Your task to perform on an android device: Clear the shopping cart on walmart.com. Add bose soundsport free to the cart on walmart.com, then select checkout. Image 0: 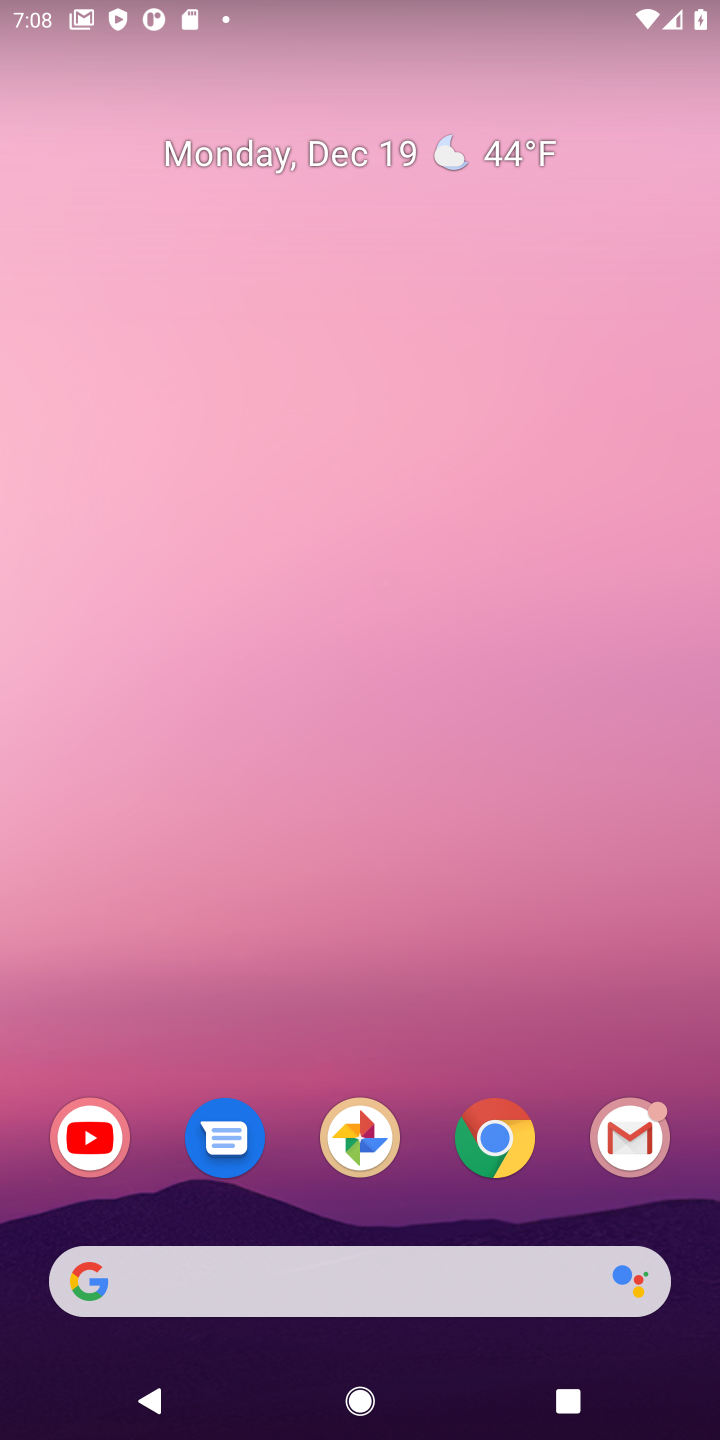
Step 0: click (499, 1140)
Your task to perform on an android device: Clear the shopping cart on walmart.com. Add bose soundsport free to the cart on walmart.com, then select checkout. Image 1: 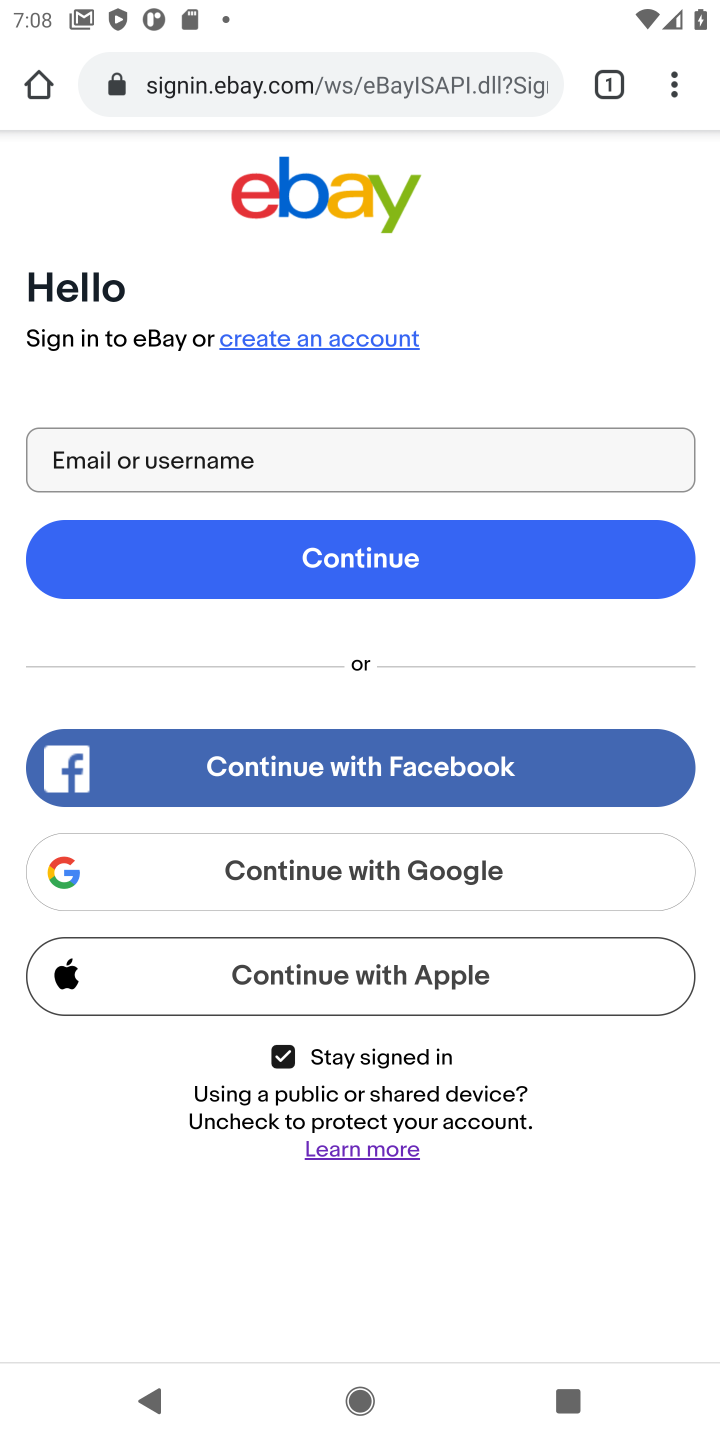
Step 1: click (382, 74)
Your task to perform on an android device: Clear the shopping cart on walmart.com. Add bose soundsport free to the cart on walmart.com, then select checkout. Image 2: 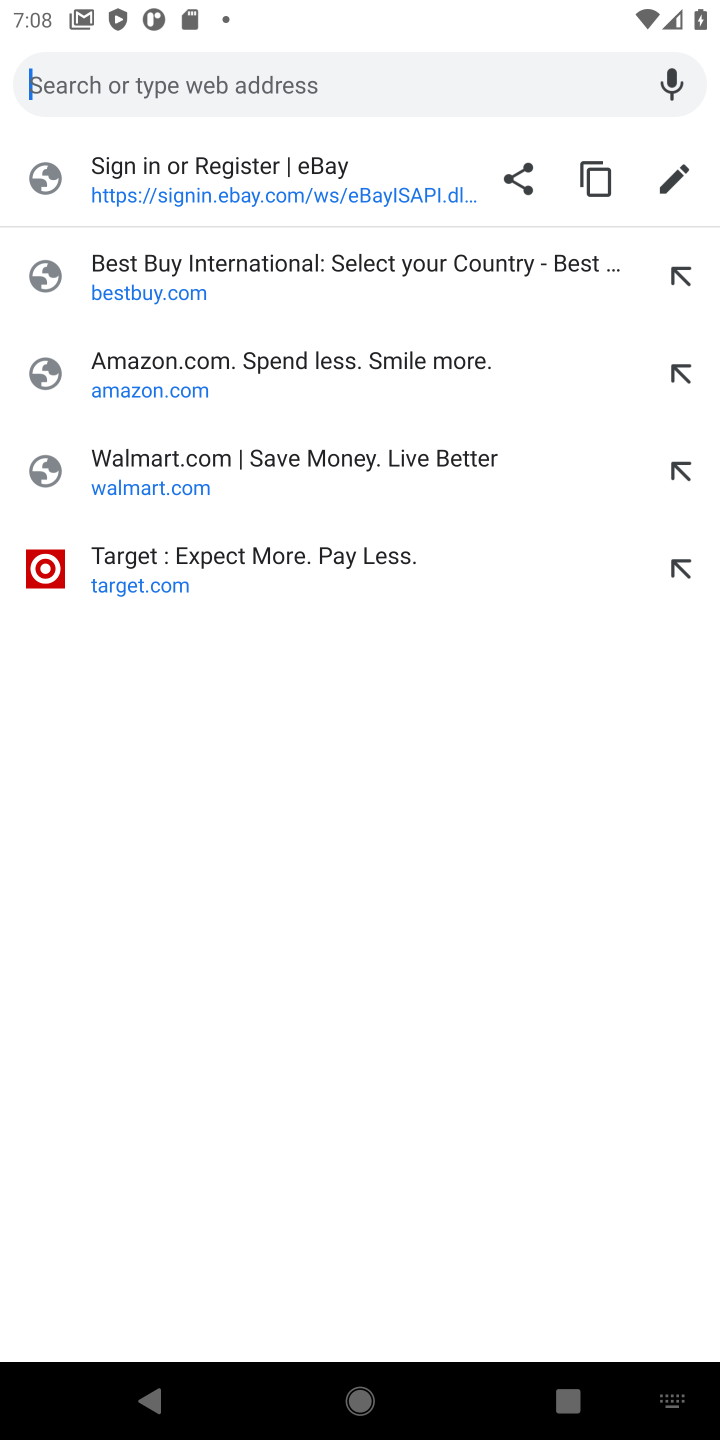
Step 2: click (208, 471)
Your task to perform on an android device: Clear the shopping cart on walmart.com. Add bose soundsport free to the cart on walmart.com, then select checkout. Image 3: 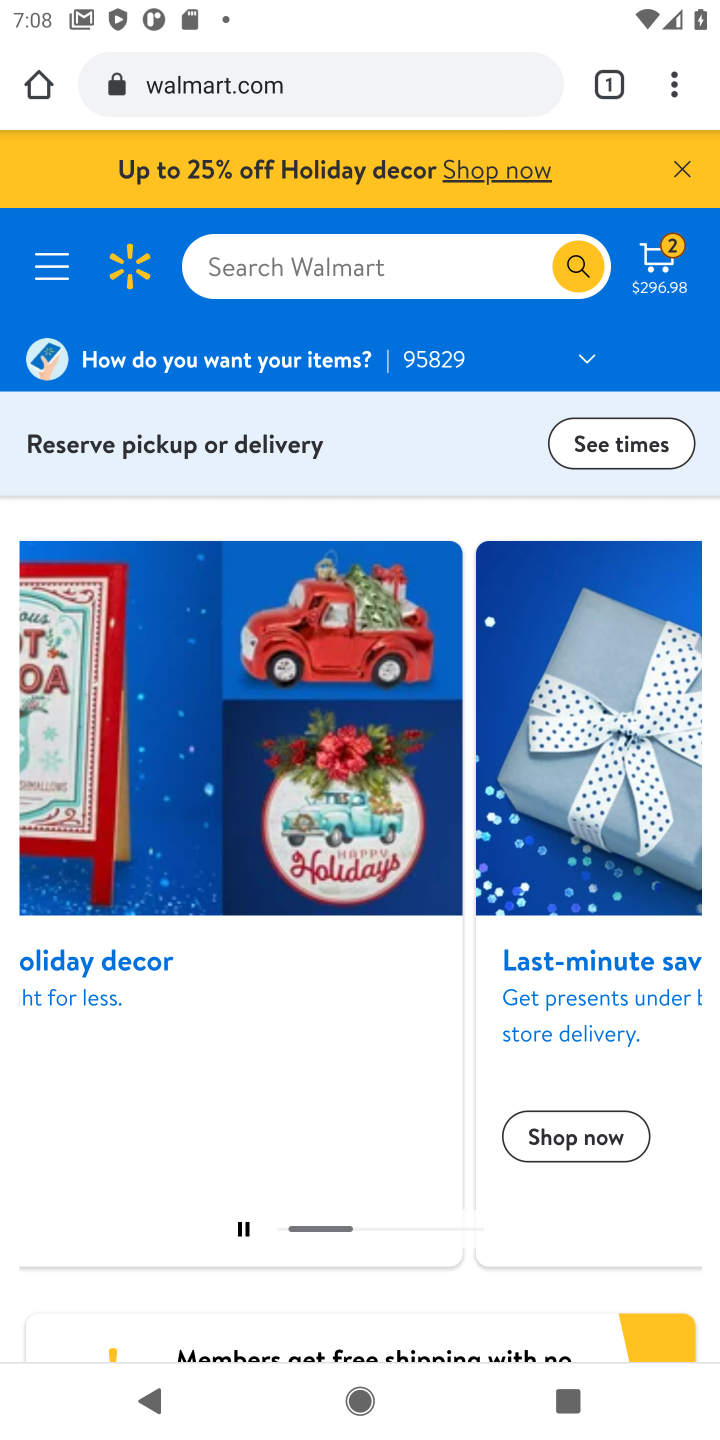
Step 3: click (656, 273)
Your task to perform on an android device: Clear the shopping cart on walmart.com. Add bose soundsport free to the cart on walmart.com, then select checkout. Image 4: 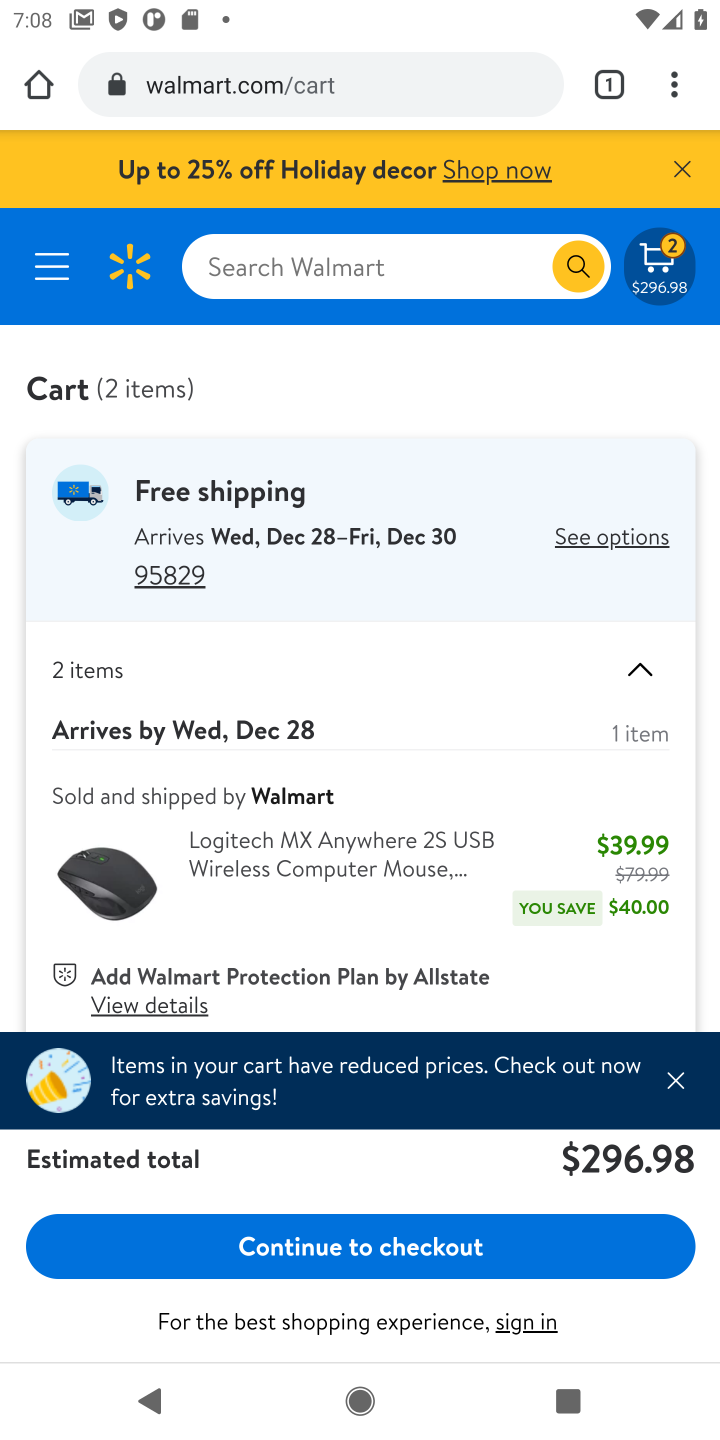
Step 4: click (676, 1090)
Your task to perform on an android device: Clear the shopping cart on walmart.com. Add bose soundsport free to the cart on walmart.com, then select checkout. Image 5: 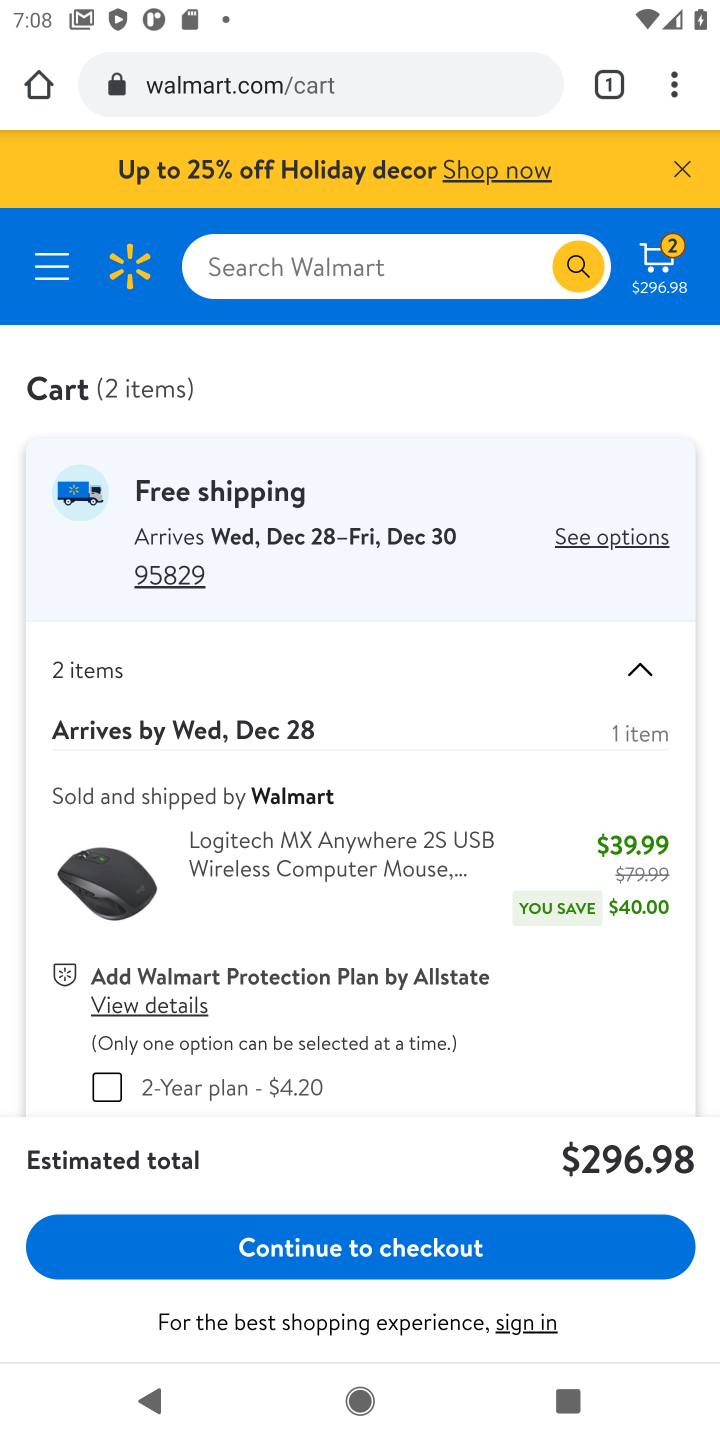
Step 5: drag from (340, 945) to (294, 517)
Your task to perform on an android device: Clear the shopping cart on walmart.com. Add bose soundsport free to the cart on walmart.com, then select checkout. Image 6: 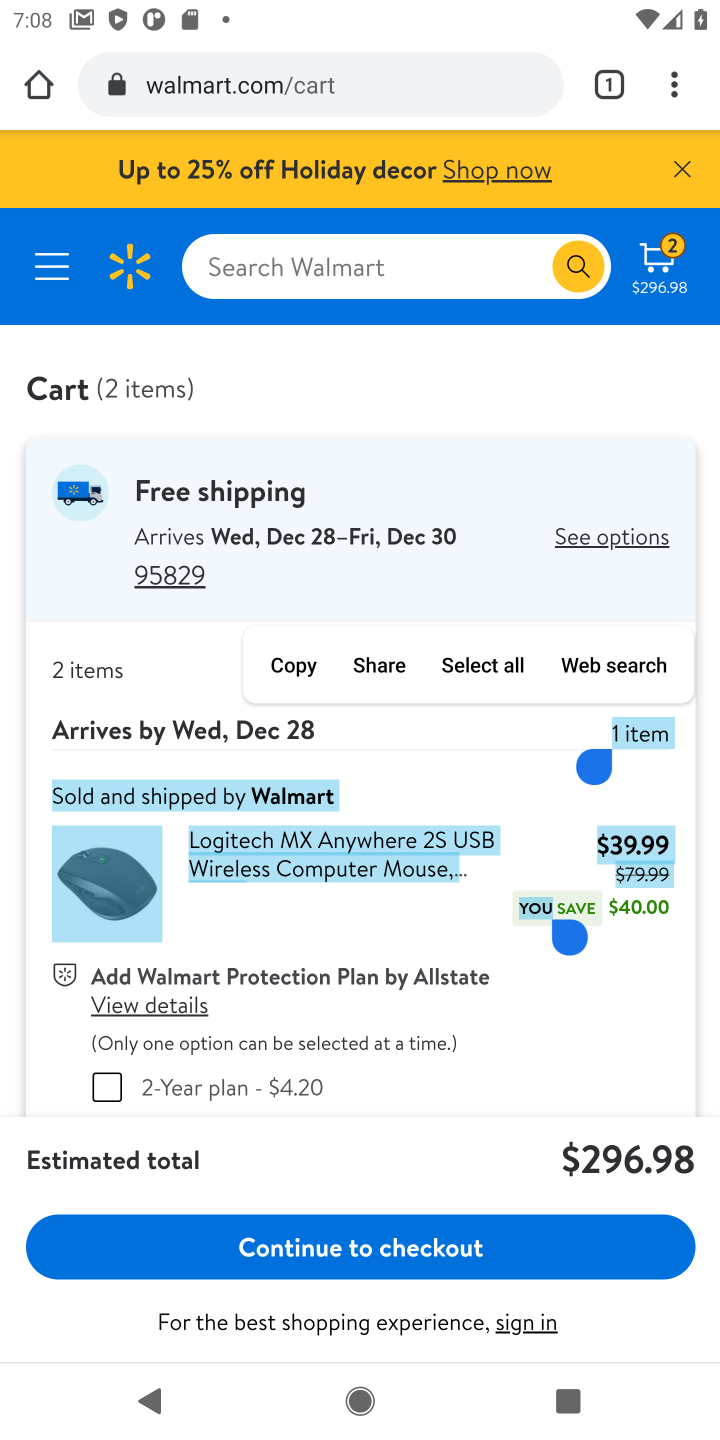
Step 6: click (372, 667)
Your task to perform on an android device: Clear the shopping cart on walmart.com. Add bose soundsport free to the cart on walmart.com, then select checkout. Image 7: 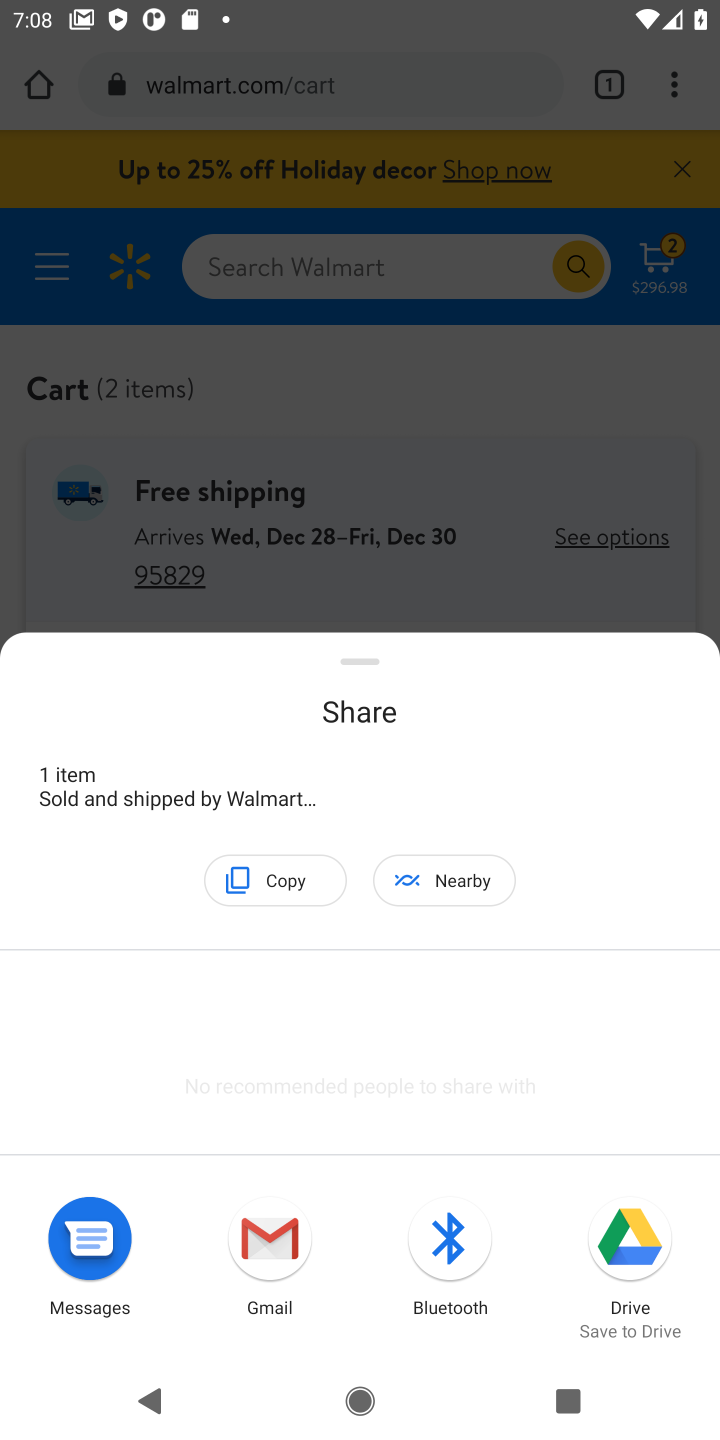
Step 7: click (301, 592)
Your task to perform on an android device: Clear the shopping cart on walmart.com. Add bose soundsport free to the cart on walmart.com, then select checkout. Image 8: 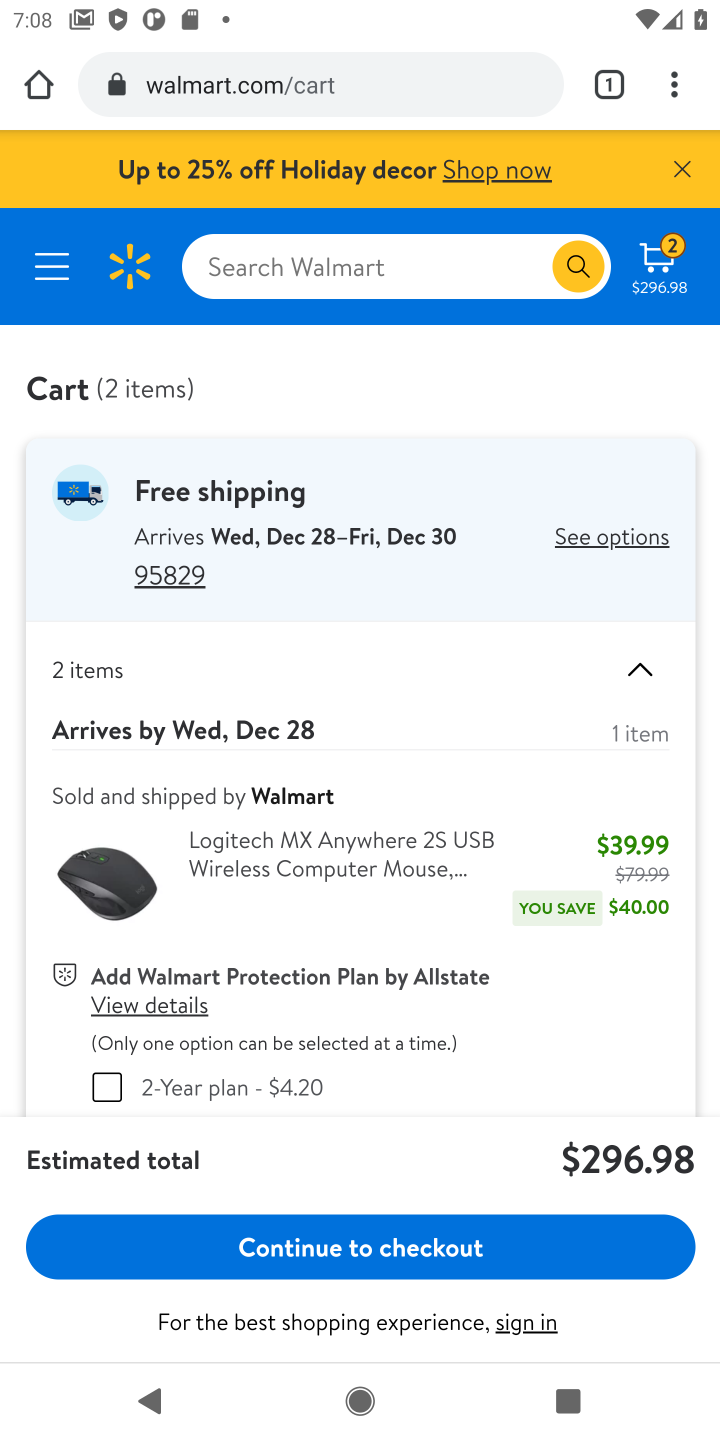
Step 8: drag from (293, 663) to (218, 224)
Your task to perform on an android device: Clear the shopping cart on walmart.com. Add bose soundsport free to the cart on walmart.com, then select checkout. Image 9: 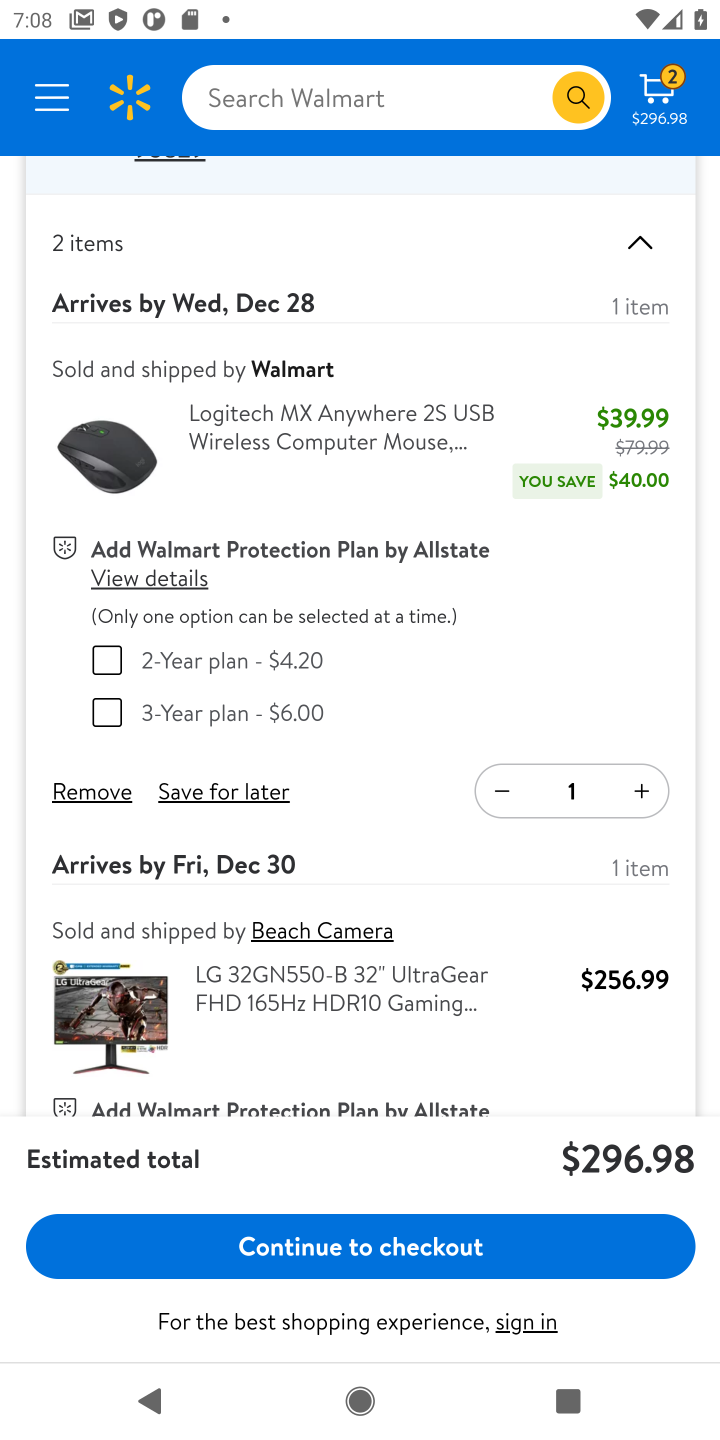
Step 9: click (91, 800)
Your task to perform on an android device: Clear the shopping cart on walmart.com. Add bose soundsport free to the cart on walmart.com, then select checkout. Image 10: 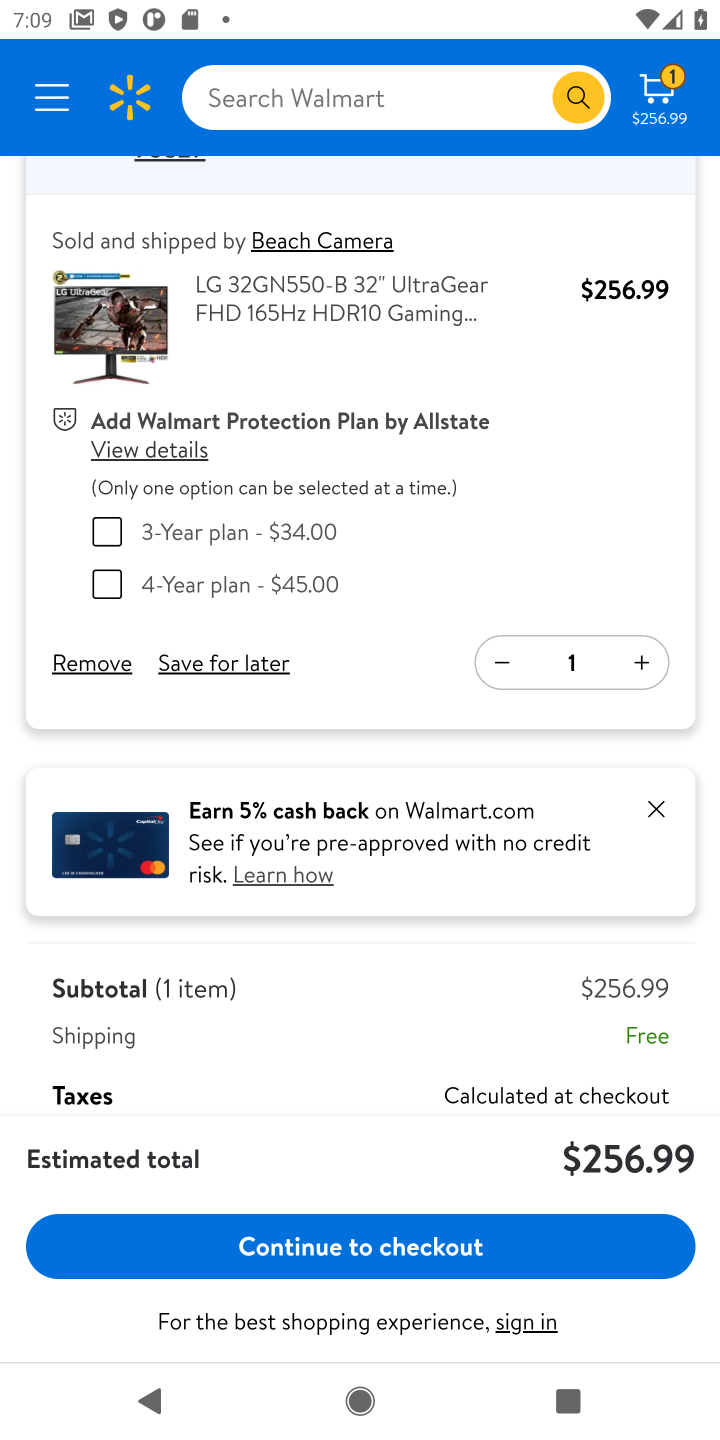
Step 10: click (94, 667)
Your task to perform on an android device: Clear the shopping cart on walmart.com. Add bose soundsport free to the cart on walmart.com, then select checkout. Image 11: 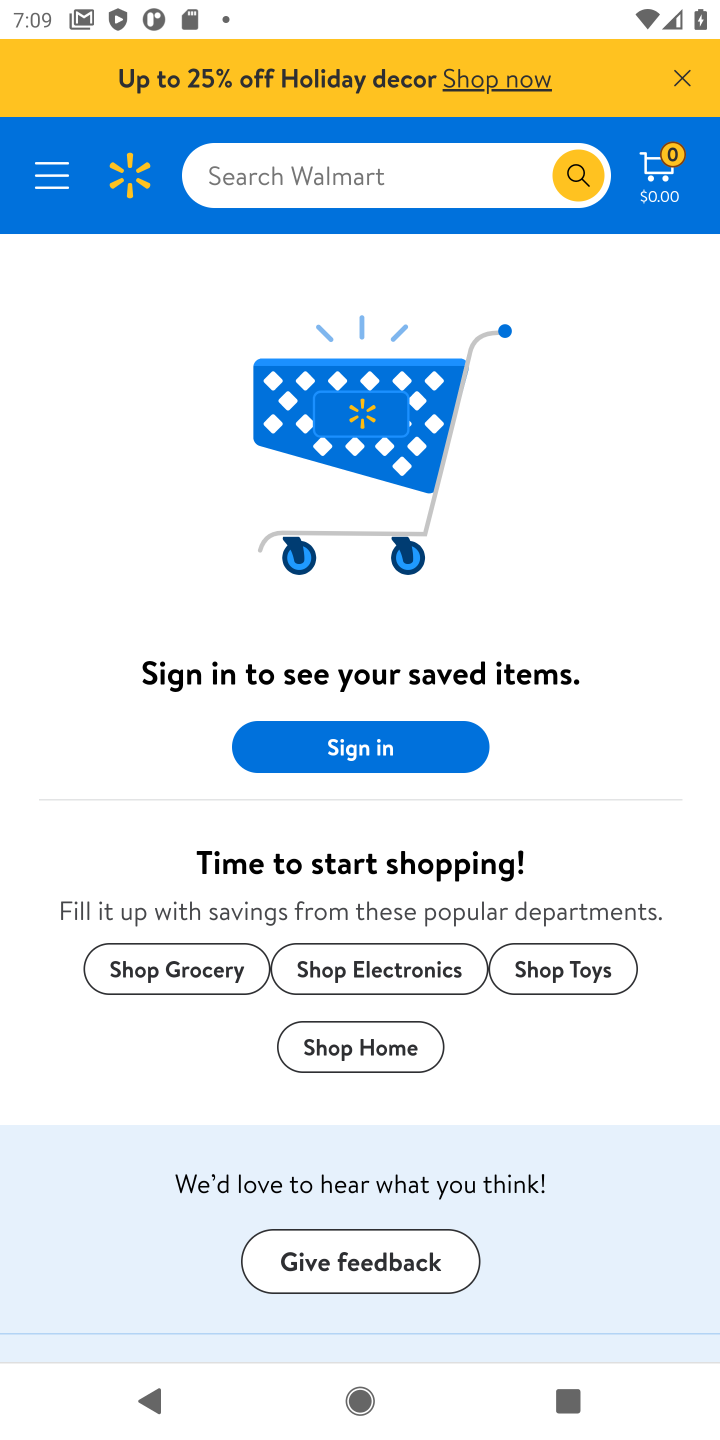
Step 11: click (423, 178)
Your task to perform on an android device: Clear the shopping cart on walmart.com. Add bose soundsport free to the cart on walmart.com, then select checkout. Image 12: 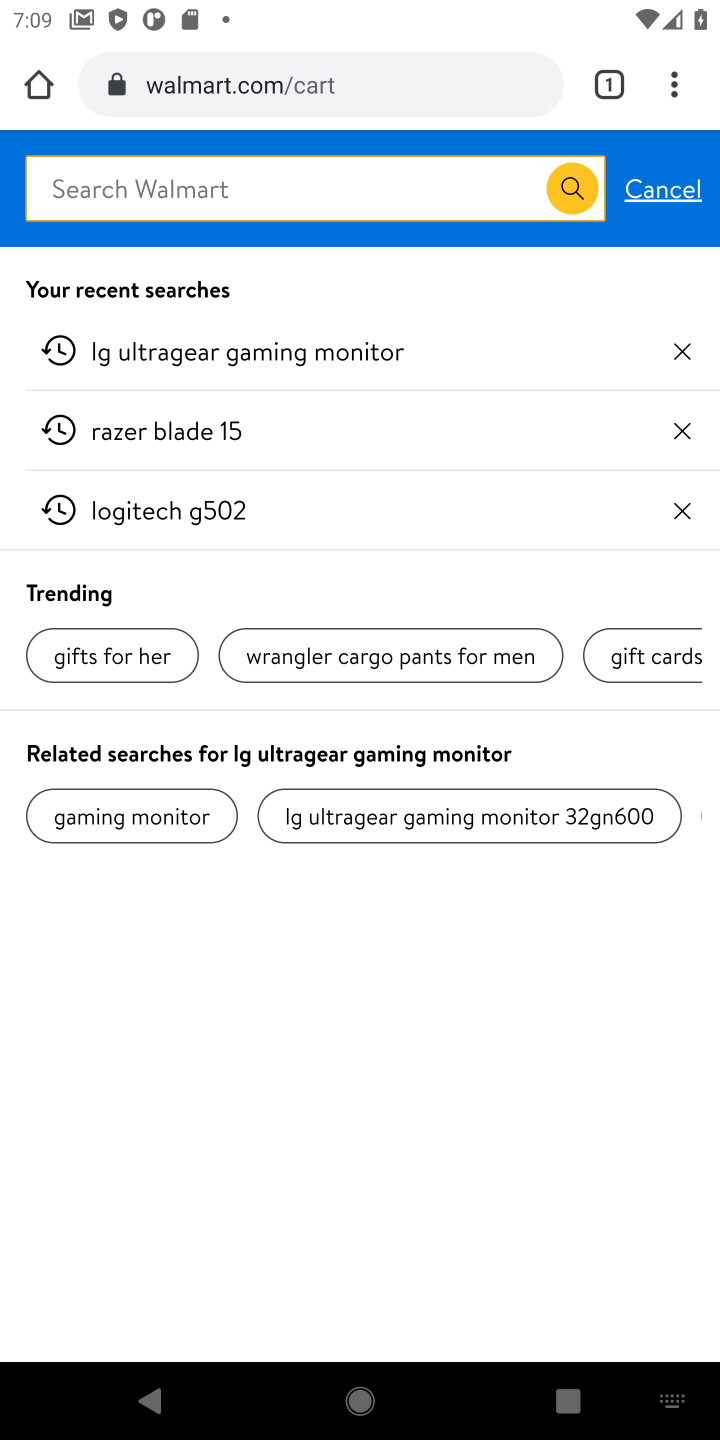
Step 12: type "BOSE SOUNDSPORT FREE"
Your task to perform on an android device: Clear the shopping cart on walmart.com. Add bose soundsport free to the cart on walmart.com, then select checkout. Image 13: 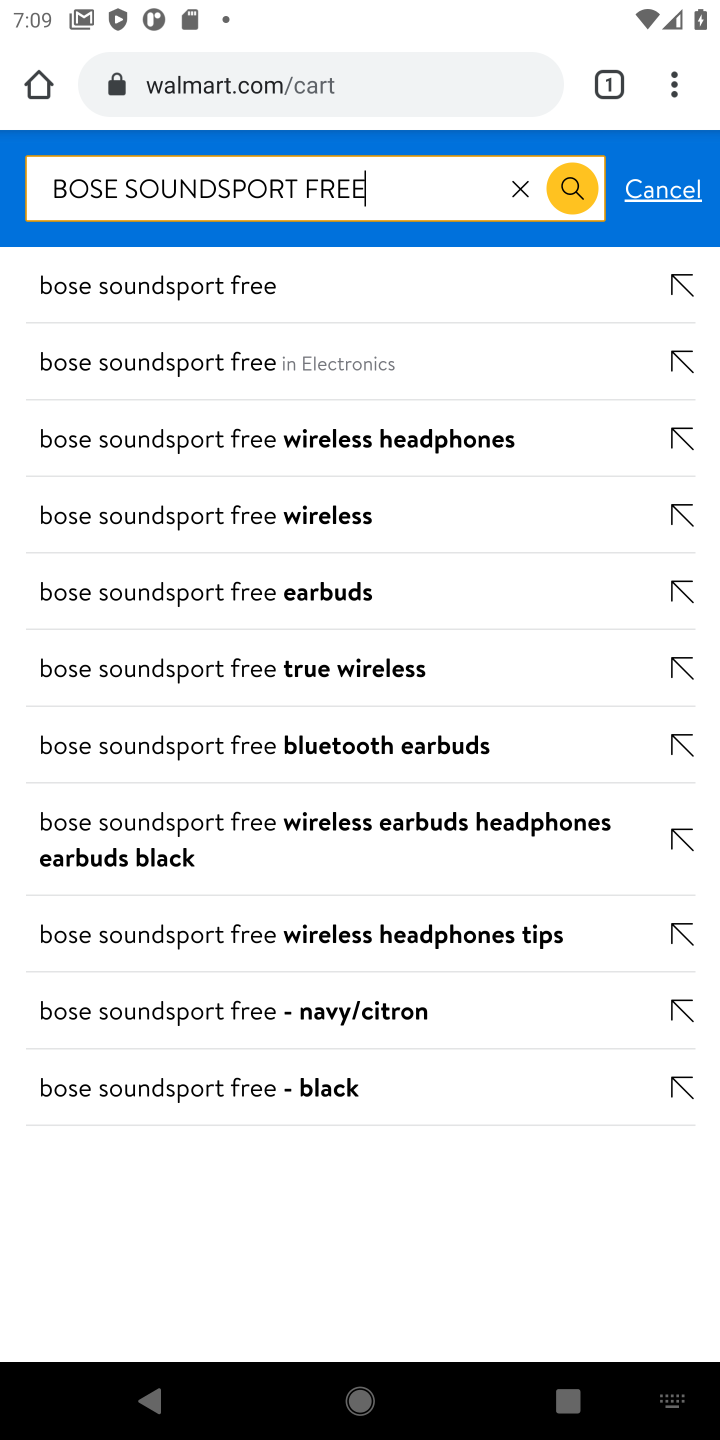
Step 13: click (252, 288)
Your task to perform on an android device: Clear the shopping cart on walmart.com. Add bose soundsport free to the cart on walmart.com, then select checkout. Image 14: 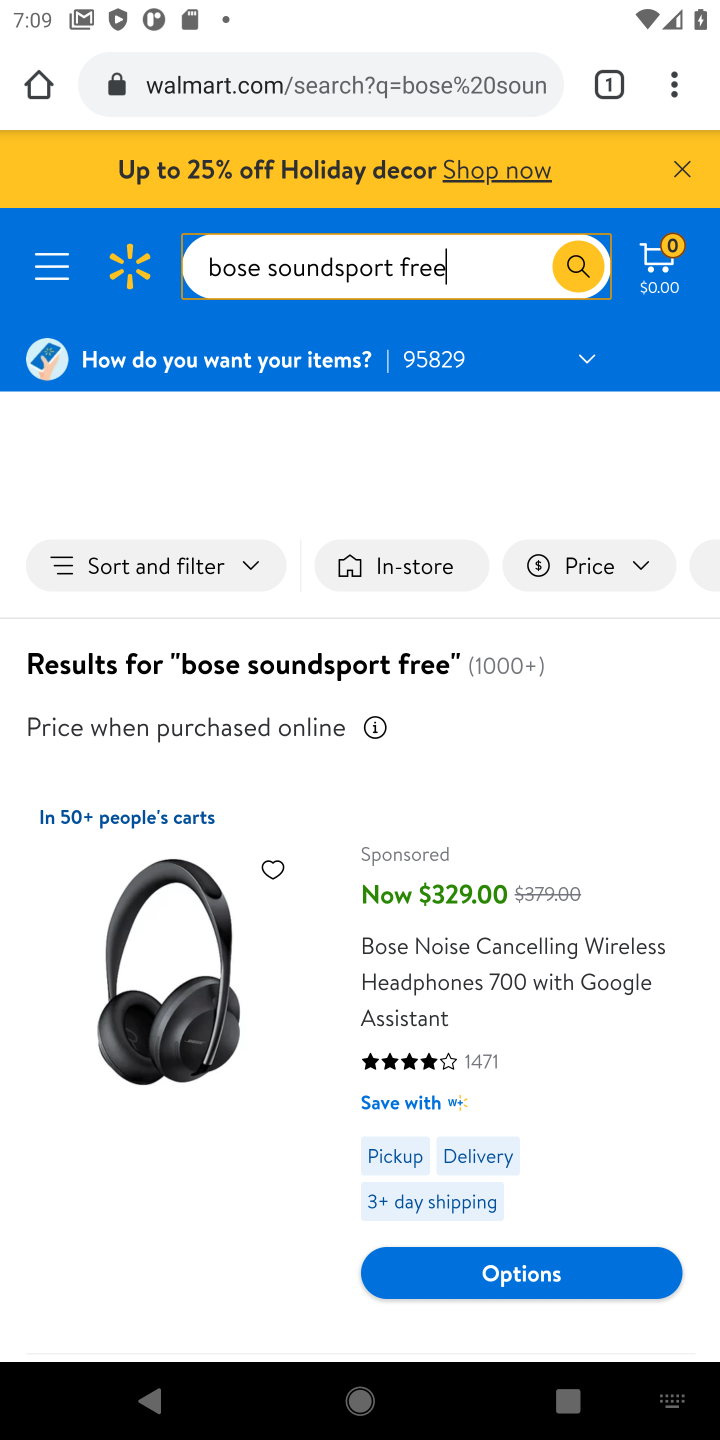
Step 14: click (532, 974)
Your task to perform on an android device: Clear the shopping cart on walmart.com. Add bose soundsport free to the cart on walmart.com, then select checkout. Image 15: 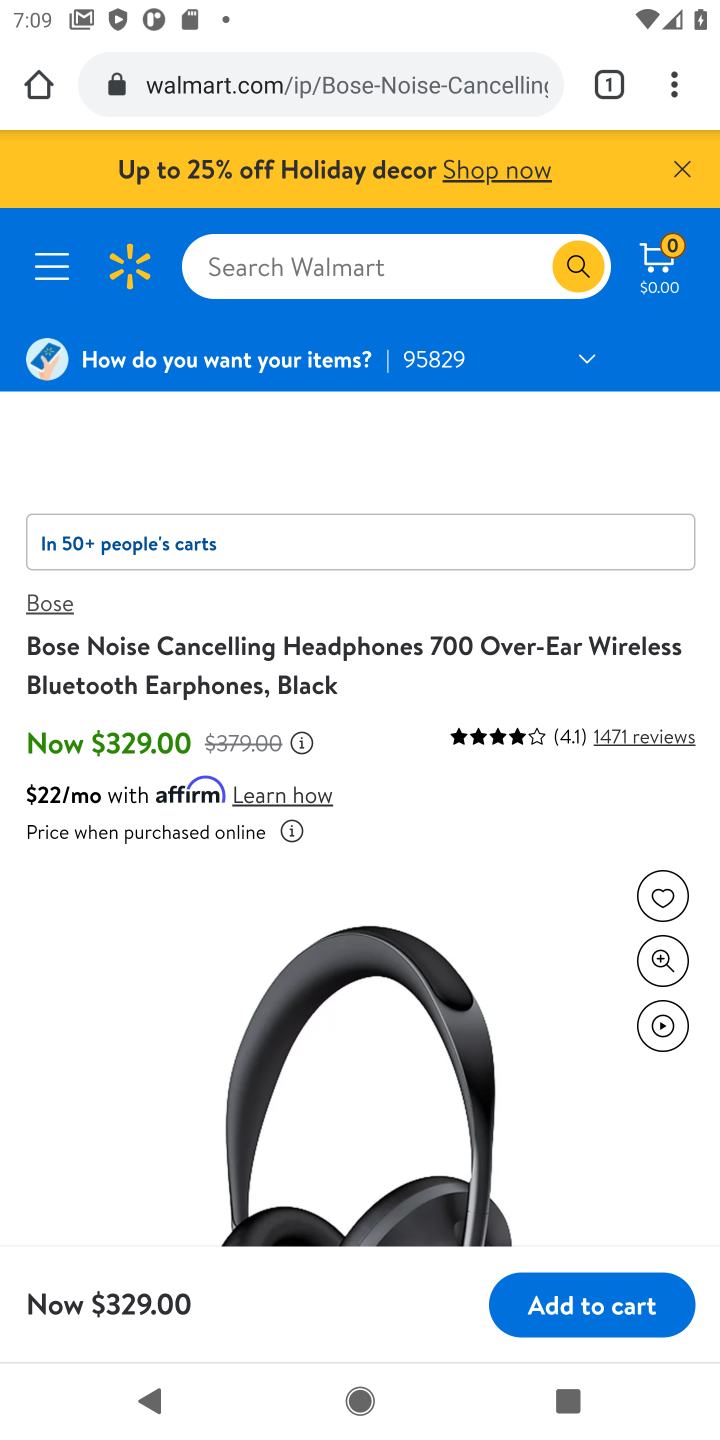
Step 15: click (590, 1308)
Your task to perform on an android device: Clear the shopping cart on walmart.com. Add bose soundsport free to the cart on walmart.com, then select checkout. Image 16: 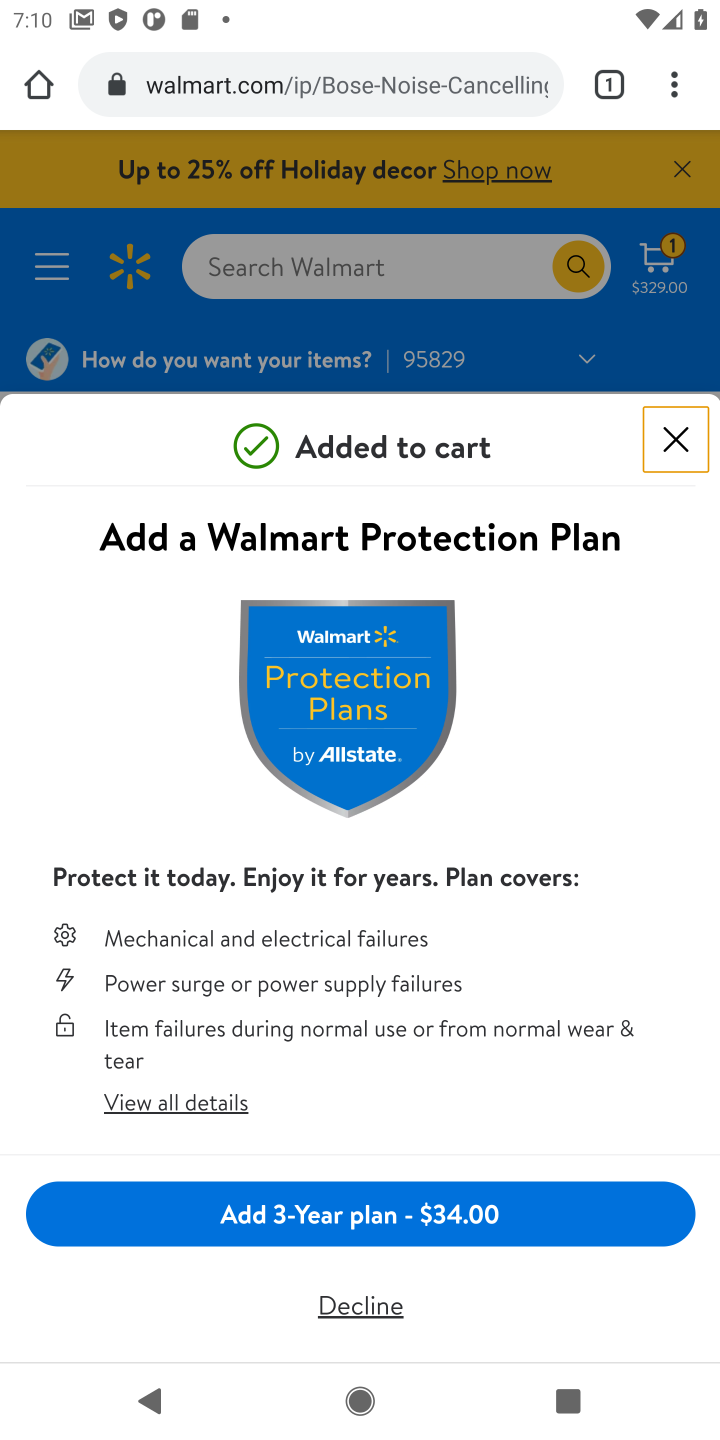
Step 16: click (664, 445)
Your task to perform on an android device: Clear the shopping cart on walmart.com. Add bose soundsport free to the cart on walmart.com, then select checkout. Image 17: 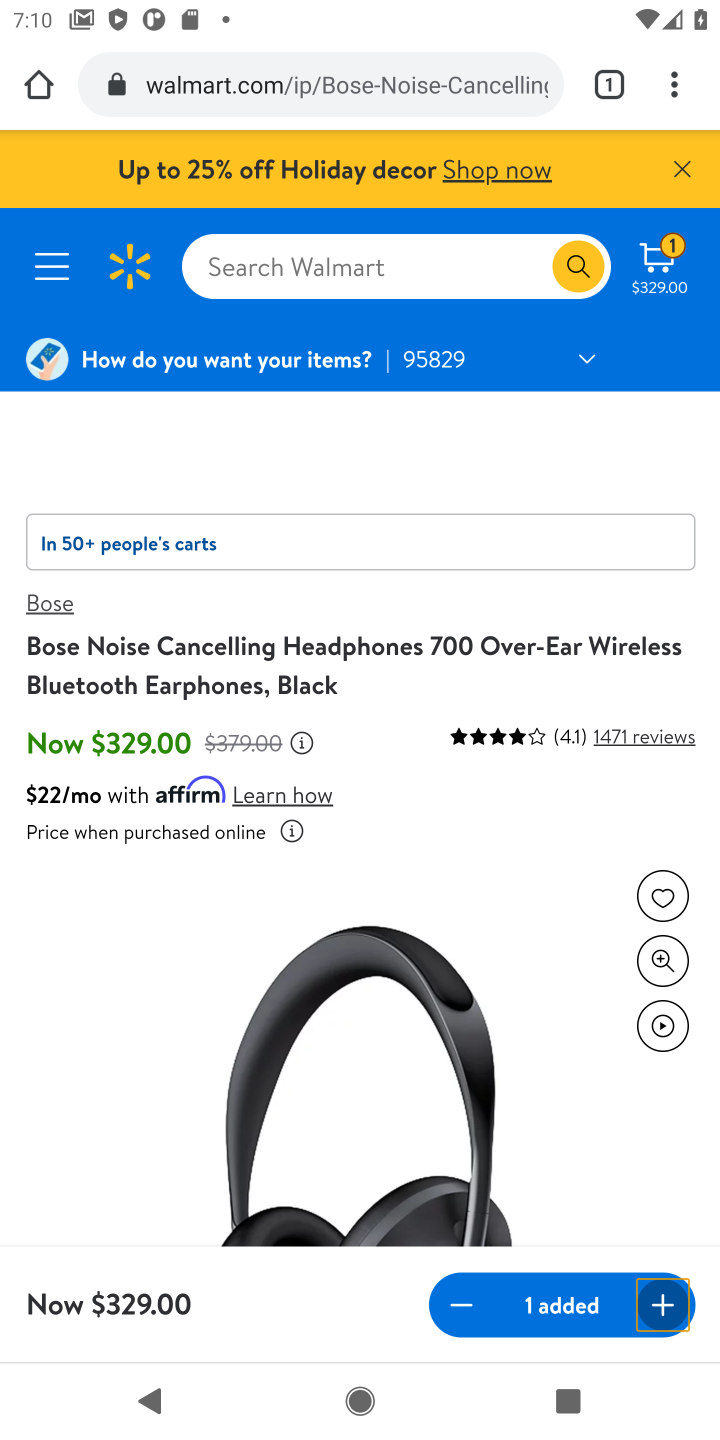
Step 17: click (662, 261)
Your task to perform on an android device: Clear the shopping cart on walmart.com. Add bose soundsport free to the cart on walmart.com, then select checkout. Image 18: 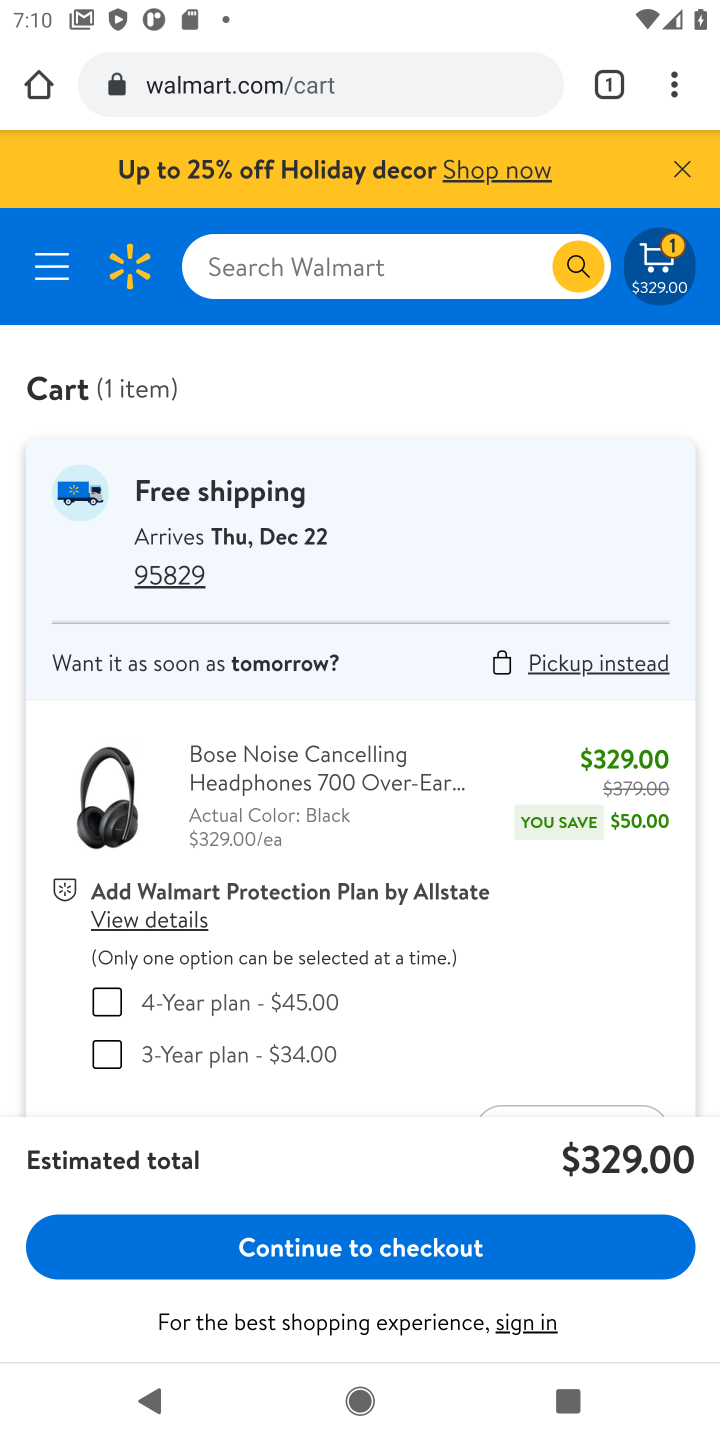
Step 18: click (420, 1247)
Your task to perform on an android device: Clear the shopping cart on walmart.com. Add bose soundsport free to the cart on walmart.com, then select checkout. Image 19: 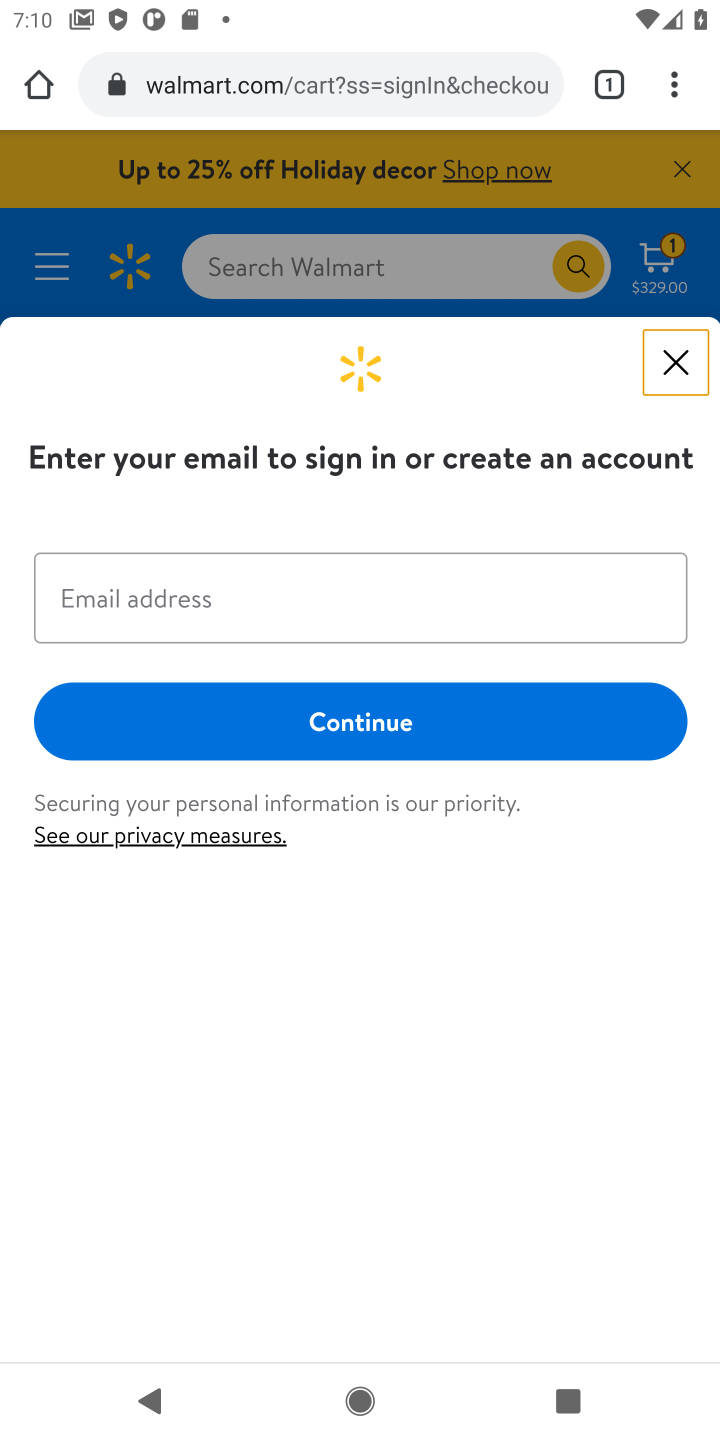
Step 19: click (668, 362)
Your task to perform on an android device: Clear the shopping cart on walmart.com. Add bose soundsport free to the cart on walmart.com, then select checkout. Image 20: 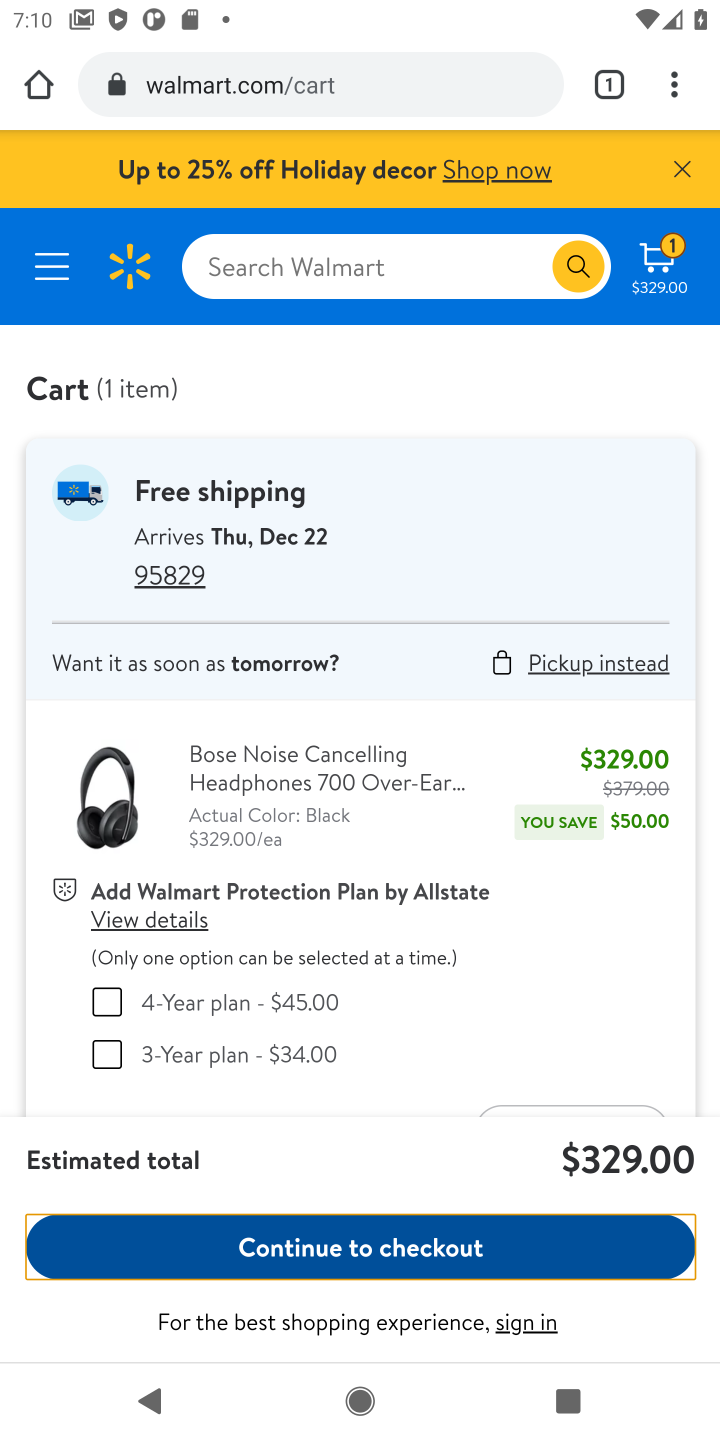
Step 20: click (436, 1251)
Your task to perform on an android device: Clear the shopping cart on walmart.com. Add bose soundsport free to the cart on walmart.com, then select checkout. Image 21: 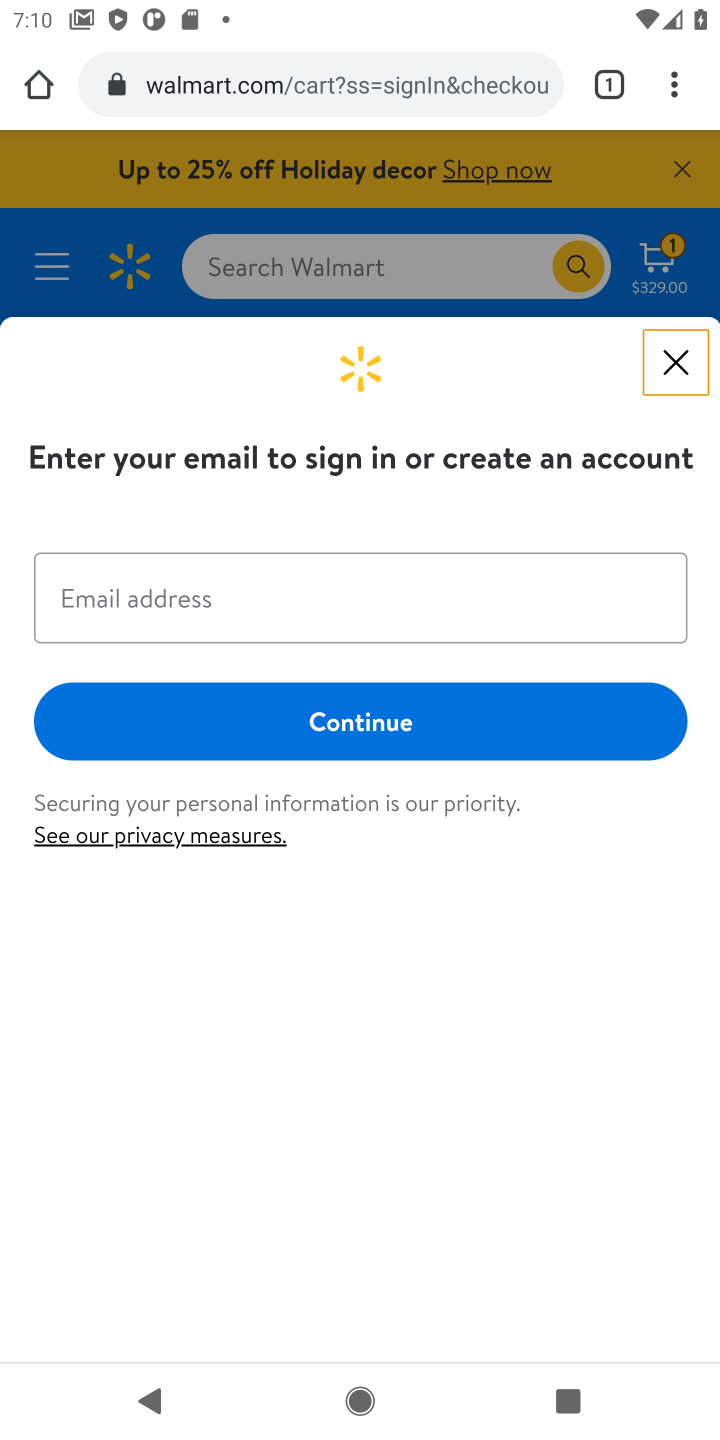
Step 21: click (668, 358)
Your task to perform on an android device: Clear the shopping cart on walmart.com. Add bose soundsport free to the cart on walmart.com, then select checkout. Image 22: 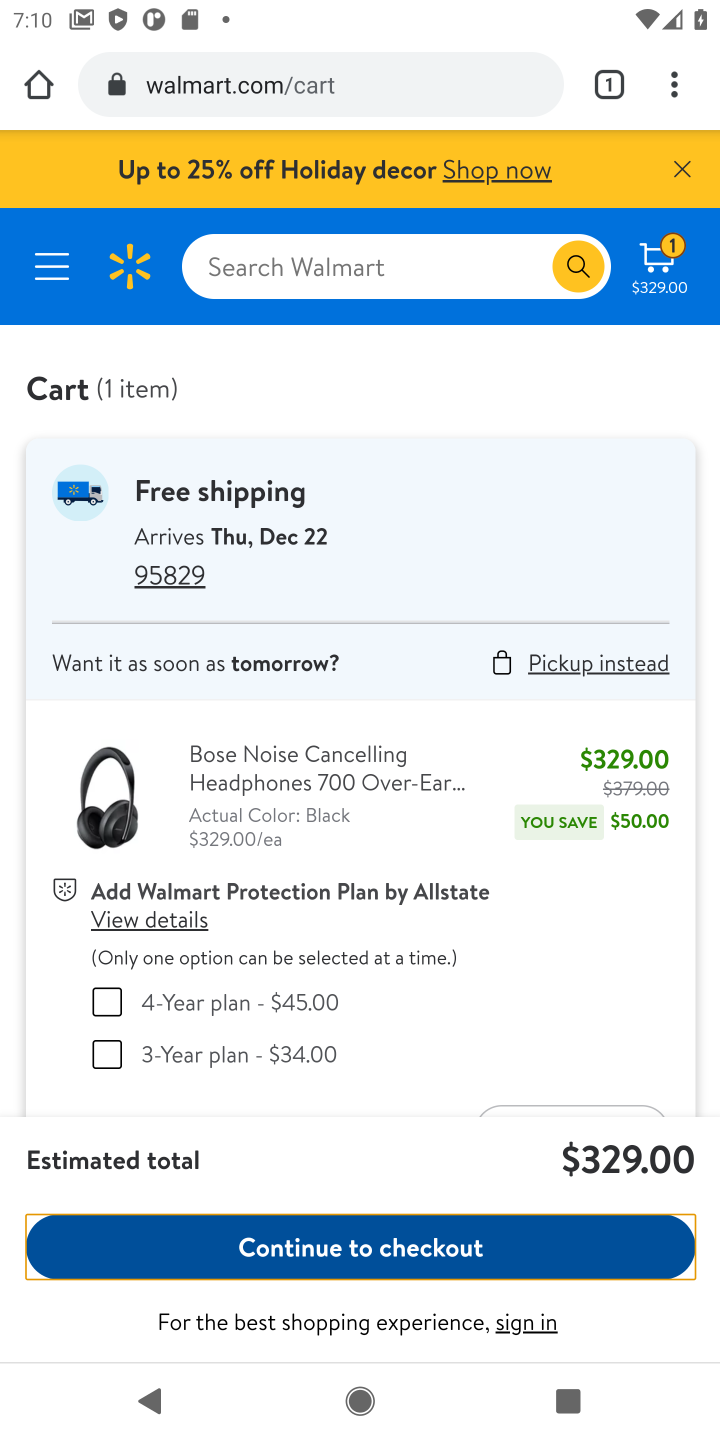
Step 22: task complete